Your task to perform on an android device: toggle pop-ups in chrome Image 0: 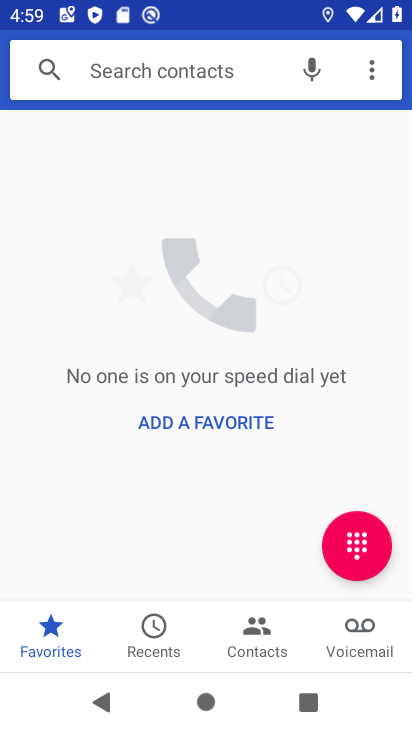
Step 0: press back button
Your task to perform on an android device: toggle pop-ups in chrome Image 1: 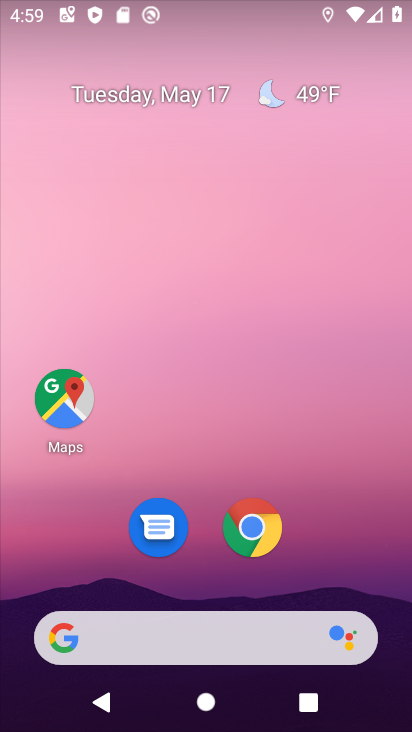
Step 1: drag from (328, 541) to (270, 9)
Your task to perform on an android device: toggle pop-ups in chrome Image 2: 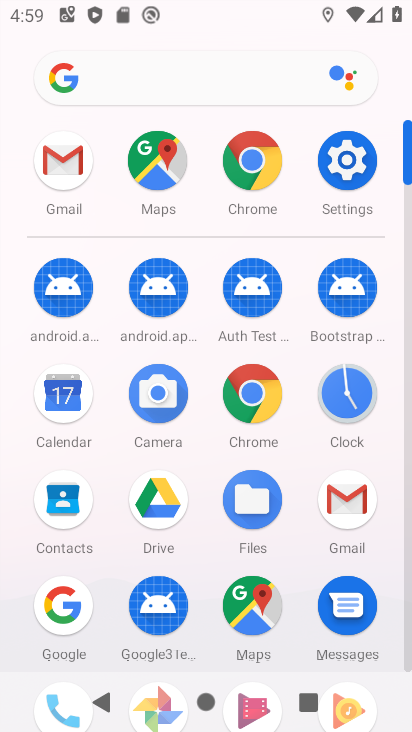
Step 2: click (249, 157)
Your task to perform on an android device: toggle pop-ups in chrome Image 3: 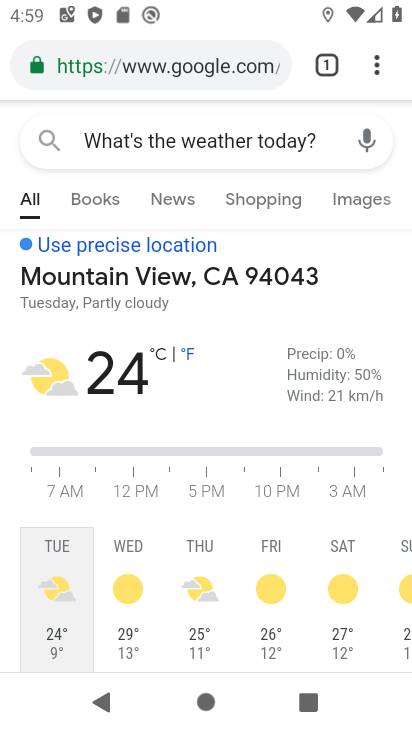
Step 3: drag from (374, 59) to (190, 576)
Your task to perform on an android device: toggle pop-ups in chrome Image 4: 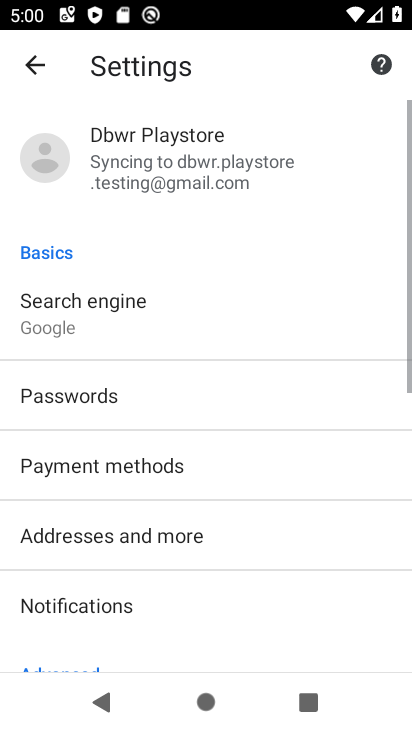
Step 4: drag from (216, 545) to (265, 235)
Your task to perform on an android device: toggle pop-ups in chrome Image 5: 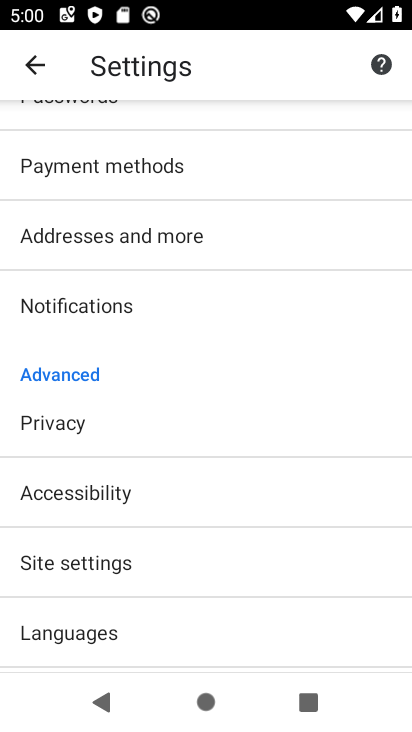
Step 5: click (237, 169)
Your task to perform on an android device: toggle pop-ups in chrome Image 6: 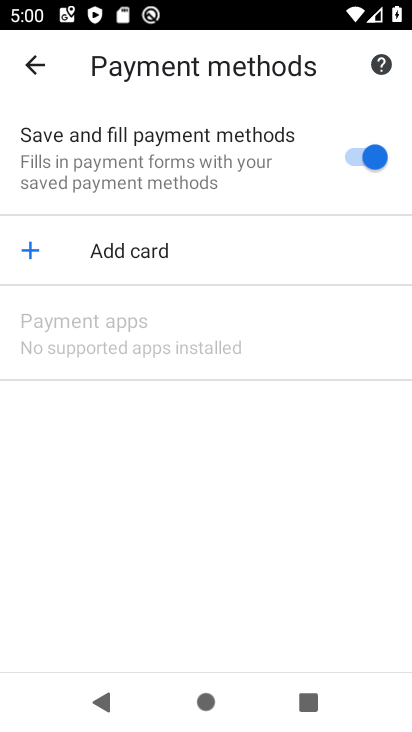
Step 6: drag from (238, 516) to (218, 225)
Your task to perform on an android device: toggle pop-ups in chrome Image 7: 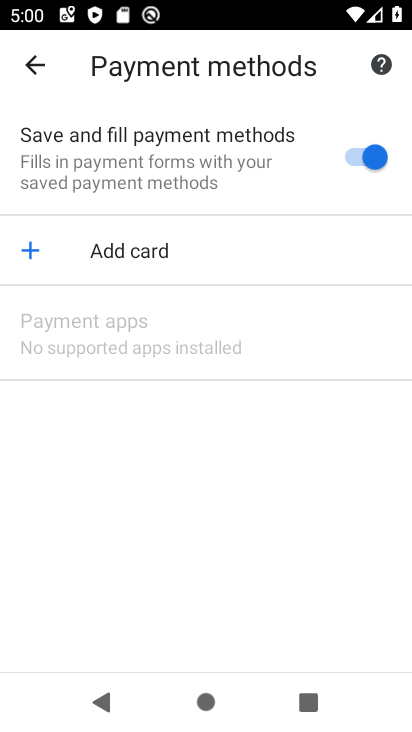
Step 7: click (40, 63)
Your task to perform on an android device: toggle pop-ups in chrome Image 8: 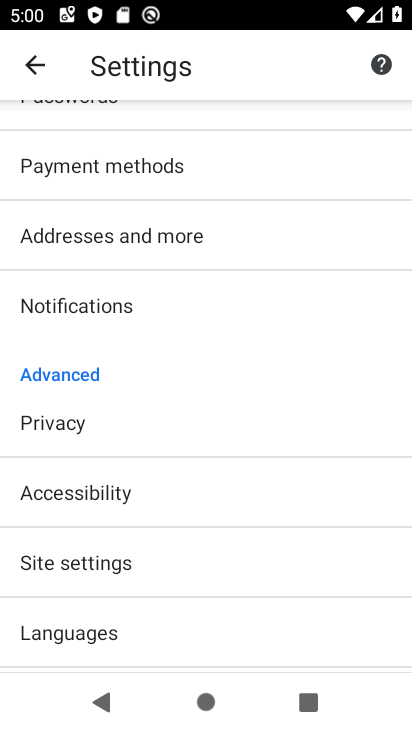
Step 8: drag from (253, 326) to (263, 646)
Your task to perform on an android device: toggle pop-ups in chrome Image 9: 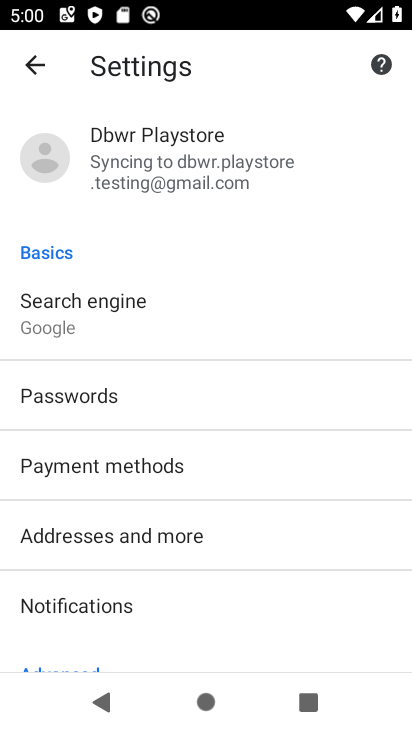
Step 9: drag from (271, 585) to (311, 185)
Your task to perform on an android device: toggle pop-ups in chrome Image 10: 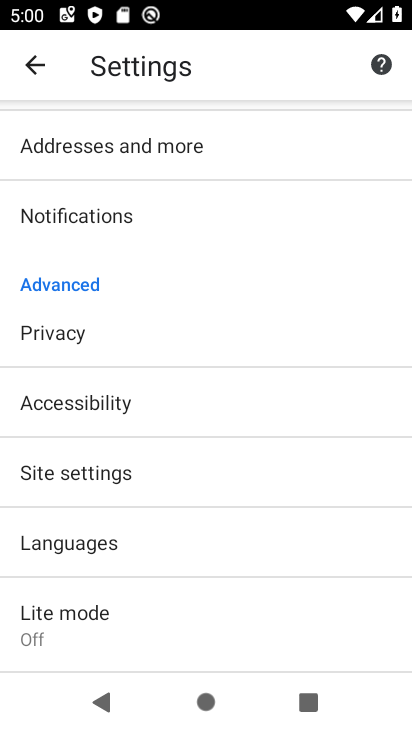
Step 10: drag from (292, 208) to (284, 580)
Your task to perform on an android device: toggle pop-ups in chrome Image 11: 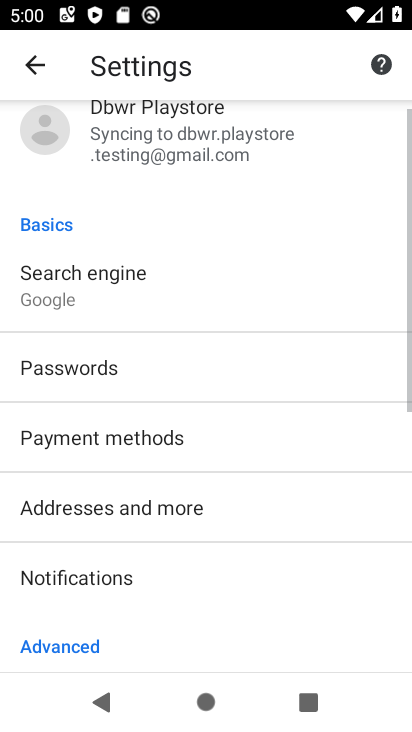
Step 11: drag from (284, 580) to (287, 216)
Your task to perform on an android device: toggle pop-ups in chrome Image 12: 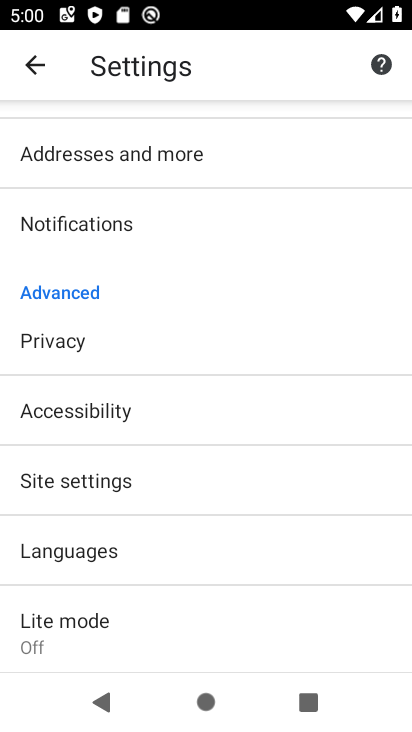
Step 12: drag from (246, 204) to (248, 644)
Your task to perform on an android device: toggle pop-ups in chrome Image 13: 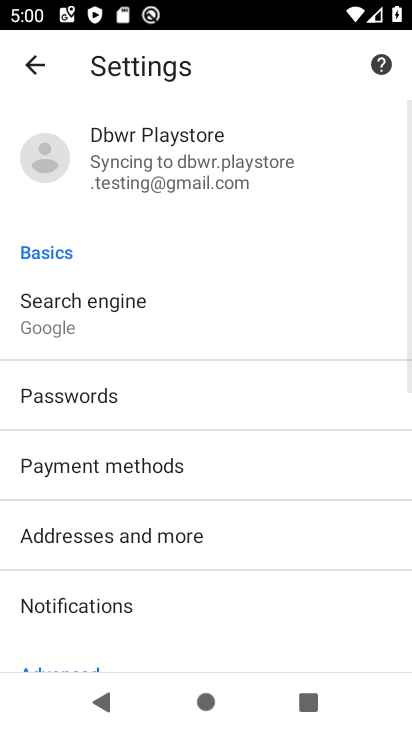
Step 13: drag from (248, 626) to (258, 162)
Your task to perform on an android device: toggle pop-ups in chrome Image 14: 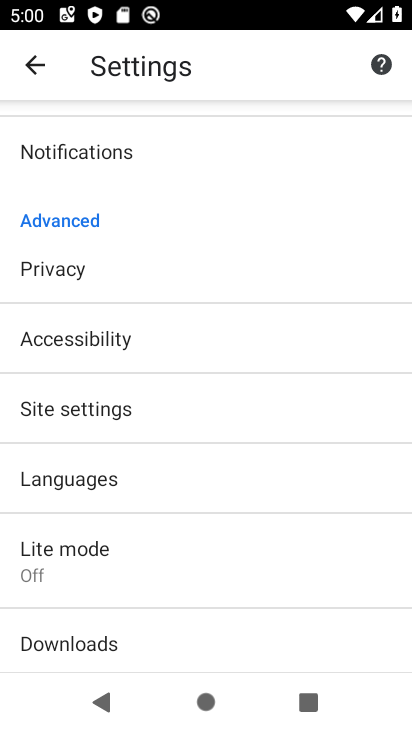
Step 14: drag from (202, 638) to (267, 263)
Your task to perform on an android device: toggle pop-ups in chrome Image 15: 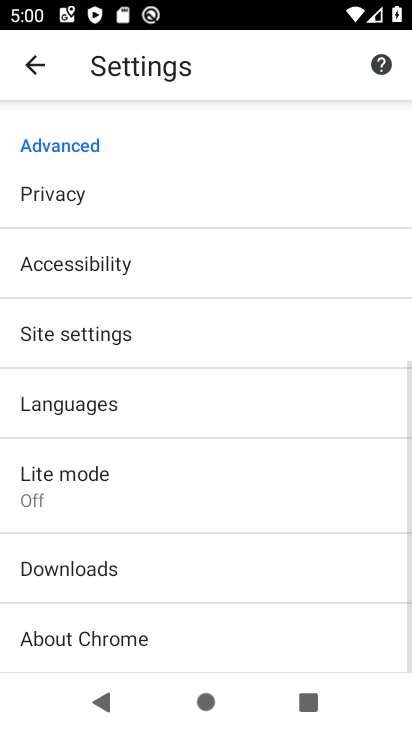
Step 15: drag from (244, 604) to (248, 200)
Your task to perform on an android device: toggle pop-ups in chrome Image 16: 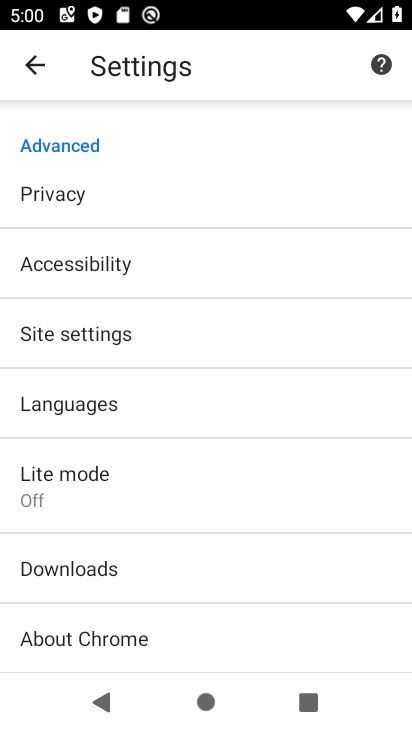
Step 16: click (160, 324)
Your task to perform on an android device: toggle pop-ups in chrome Image 17: 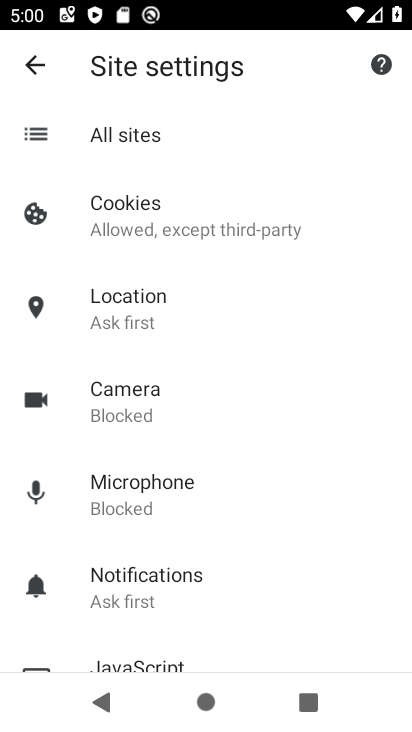
Step 17: drag from (213, 555) to (263, 202)
Your task to perform on an android device: toggle pop-ups in chrome Image 18: 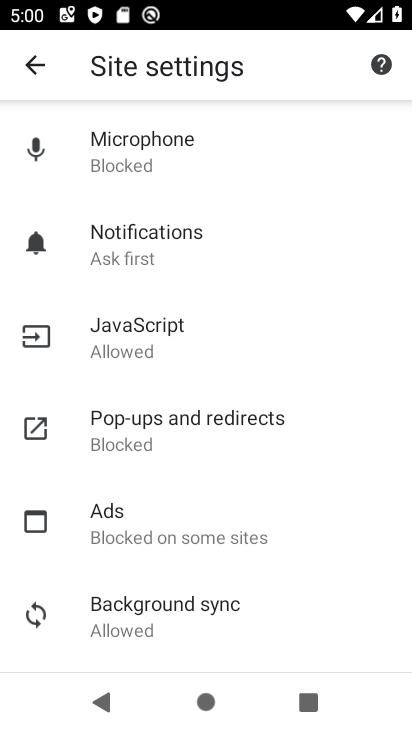
Step 18: click (188, 415)
Your task to perform on an android device: toggle pop-ups in chrome Image 19: 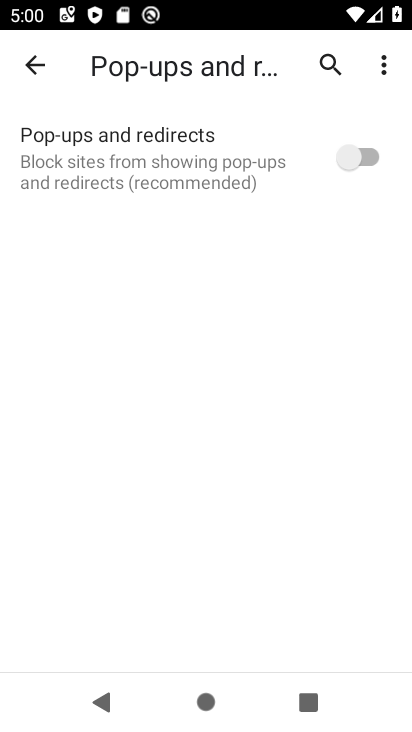
Step 19: click (387, 133)
Your task to perform on an android device: toggle pop-ups in chrome Image 20: 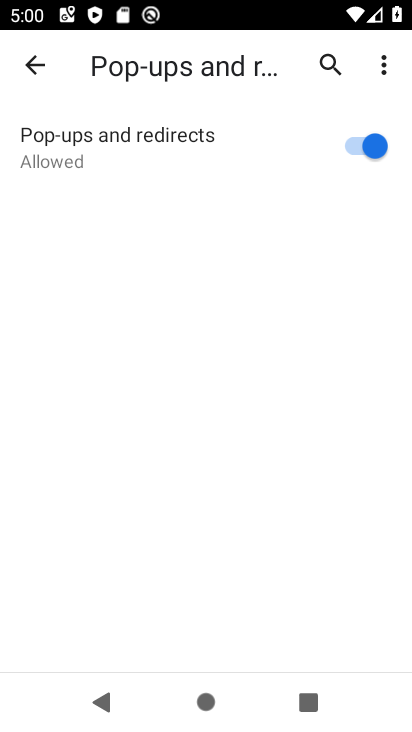
Step 20: task complete